Your task to perform on an android device: Open Youtube and go to the subscriptions tab Image 0: 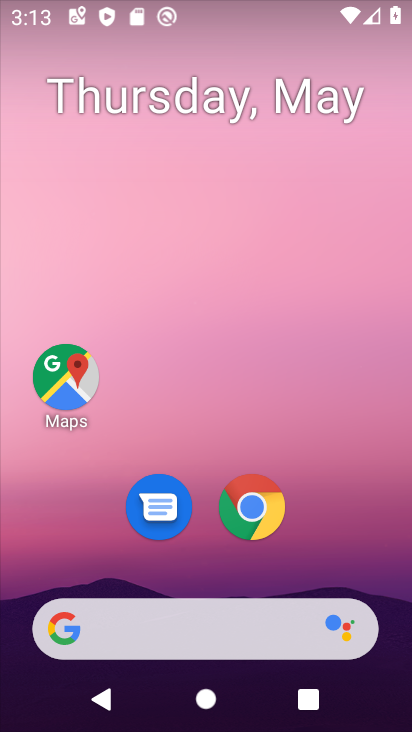
Step 0: drag from (305, 520) to (336, 111)
Your task to perform on an android device: Open Youtube and go to the subscriptions tab Image 1: 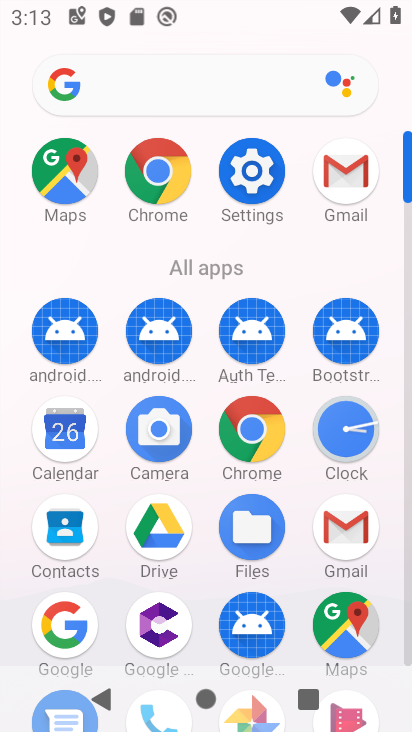
Step 1: drag from (272, 294) to (310, 47)
Your task to perform on an android device: Open Youtube and go to the subscriptions tab Image 2: 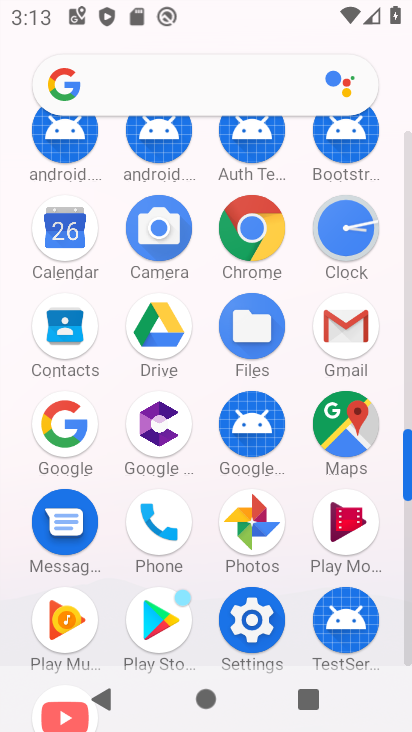
Step 2: drag from (301, 279) to (312, 39)
Your task to perform on an android device: Open Youtube and go to the subscriptions tab Image 3: 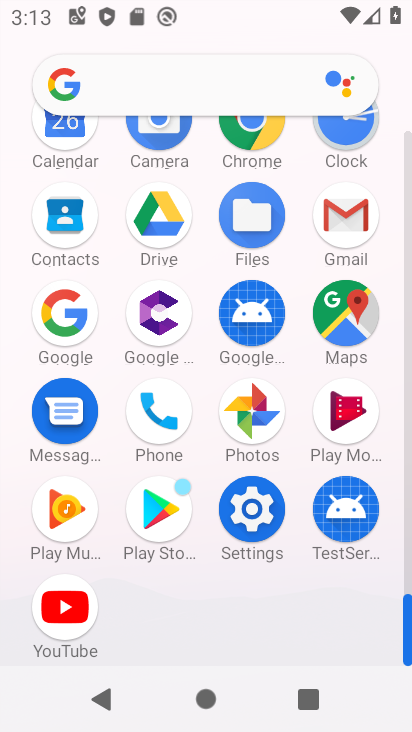
Step 3: click (66, 600)
Your task to perform on an android device: Open Youtube and go to the subscriptions tab Image 4: 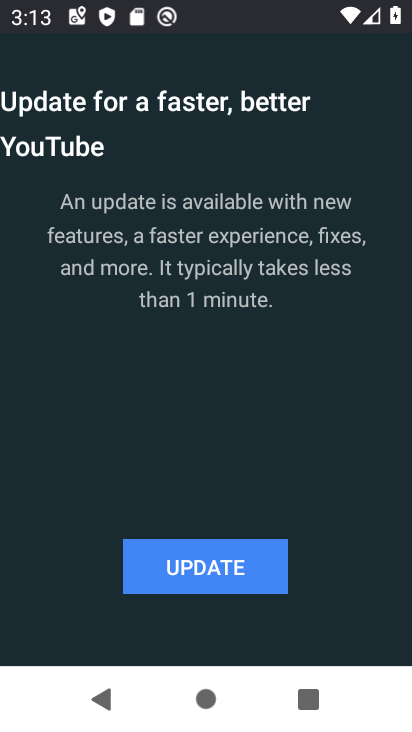
Step 4: click (163, 559)
Your task to perform on an android device: Open Youtube and go to the subscriptions tab Image 5: 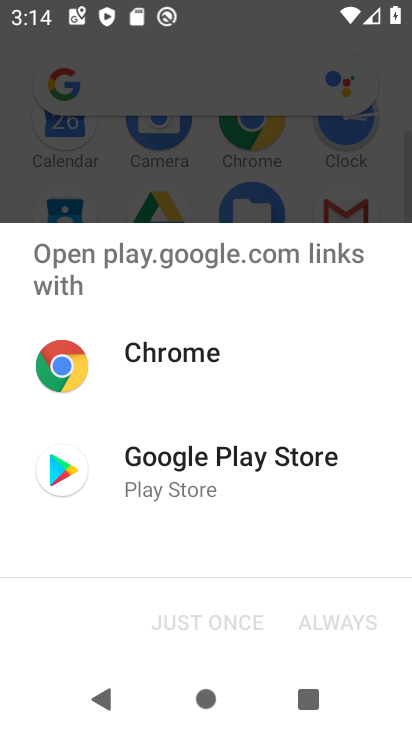
Step 5: click (148, 468)
Your task to perform on an android device: Open Youtube and go to the subscriptions tab Image 6: 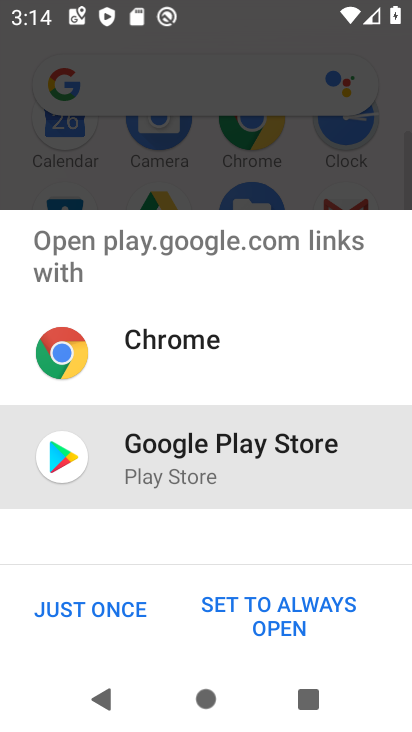
Step 6: click (103, 604)
Your task to perform on an android device: Open Youtube and go to the subscriptions tab Image 7: 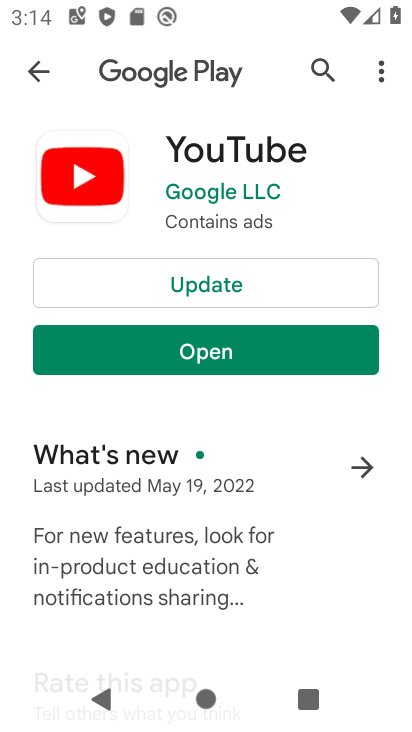
Step 7: click (299, 284)
Your task to perform on an android device: Open Youtube and go to the subscriptions tab Image 8: 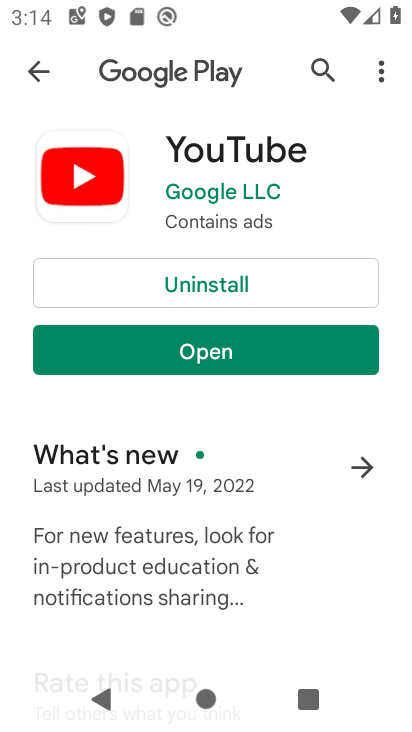
Step 8: click (283, 354)
Your task to perform on an android device: Open Youtube and go to the subscriptions tab Image 9: 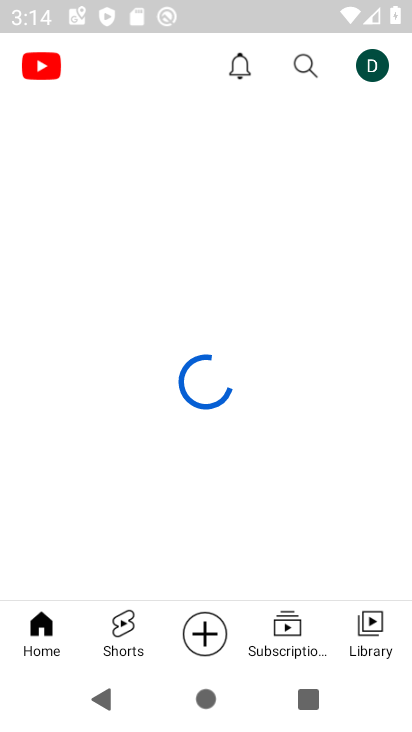
Step 9: click (253, 629)
Your task to perform on an android device: Open Youtube and go to the subscriptions tab Image 10: 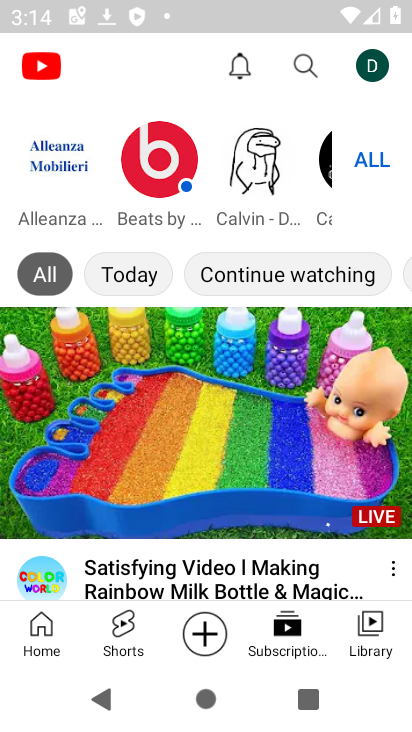
Step 10: task complete